Your task to perform on an android device: Open Google Chrome and click the shortcut for Amazon.com Image 0: 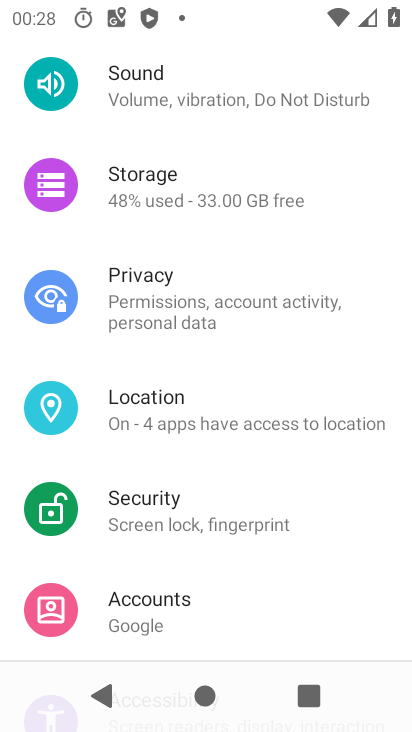
Step 0: press home button
Your task to perform on an android device: Open Google Chrome and click the shortcut for Amazon.com Image 1: 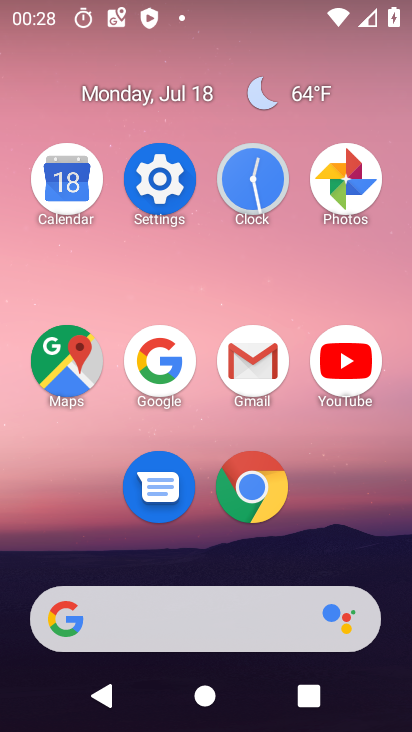
Step 1: click (265, 485)
Your task to perform on an android device: Open Google Chrome and click the shortcut for Amazon.com Image 2: 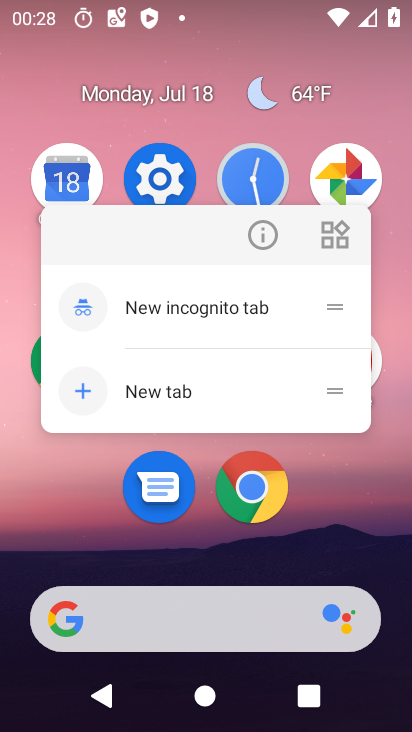
Step 2: click (265, 485)
Your task to perform on an android device: Open Google Chrome and click the shortcut for Amazon.com Image 3: 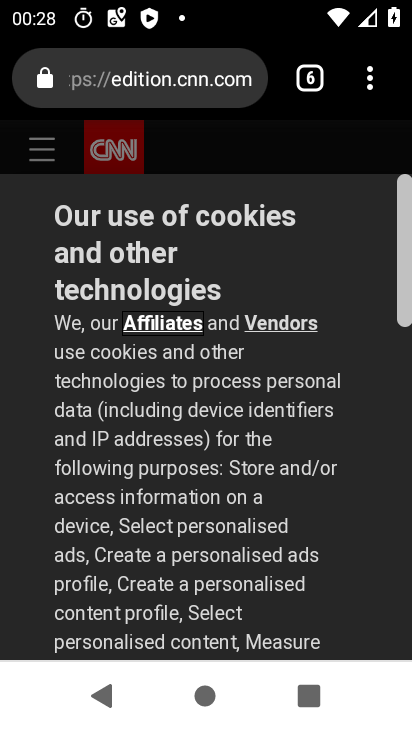
Step 3: click (334, 88)
Your task to perform on an android device: Open Google Chrome and click the shortcut for Amazon.com Image 4: 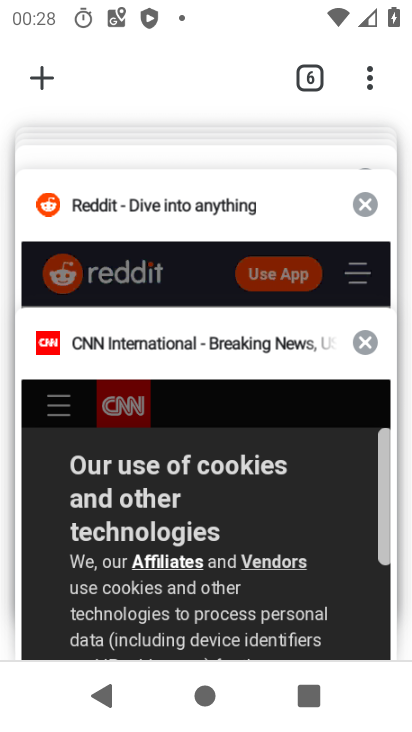
Step 4: click (43, 78)
Your task to perform on an android device: Open Google Chrome and click the shortcut for Amazon.com Image 5: 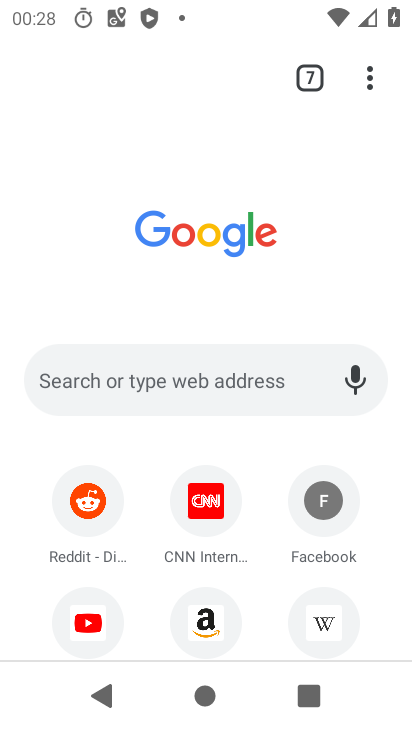
Step 5: click (217, 623)
Your task to perform on an android device: Open Google Chrome and click the shortcut for Amazon.com Image 6: 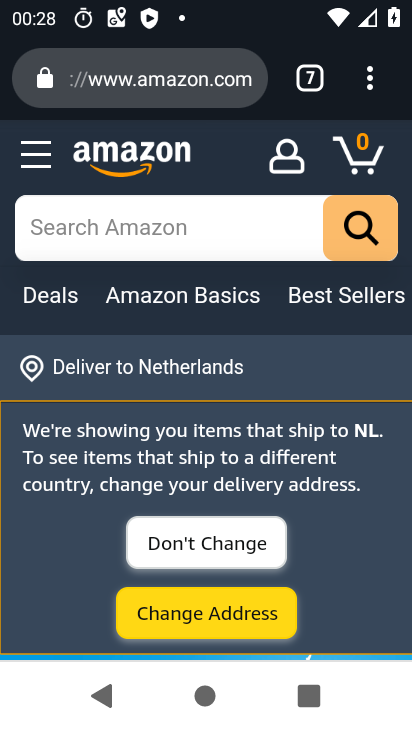
Step 6: task complete